Your task to perform on an android device: Search for Italian restaurants on Maps Image 0: 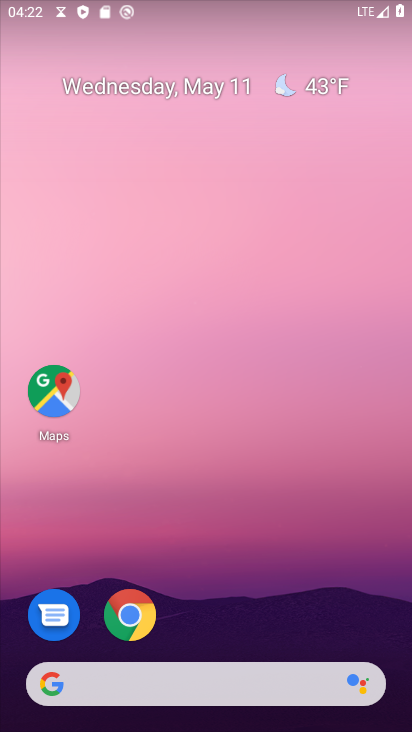
Step 0: drag from (203, 531) to (151, 28)
Your task to perform on an android device: Search for Italian restaurants on Maps Image 1: 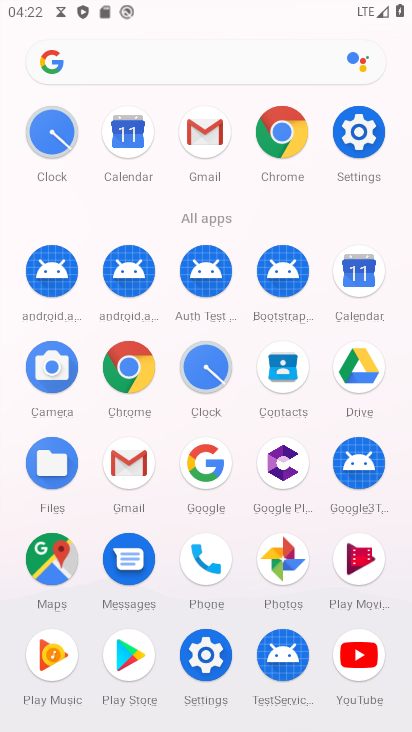
Step 1: click (51, 556)
Your task to perform on an android device: Search for Italian restaurants on Maps Image 2: 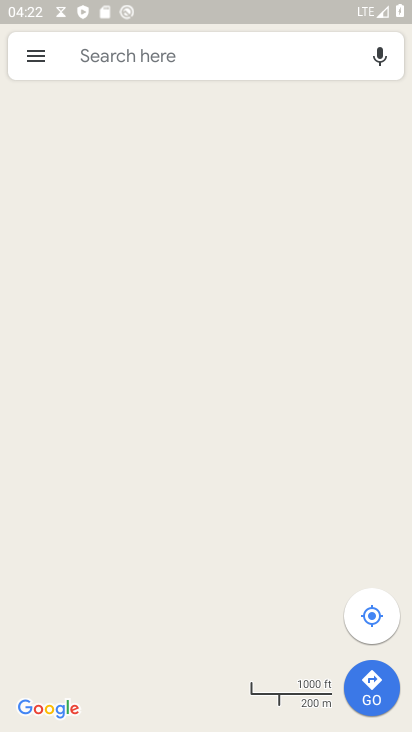
Step 2: click (222, 55)
Your task to perform on an android device: Search for Italian restaurants on Maps Image 3: 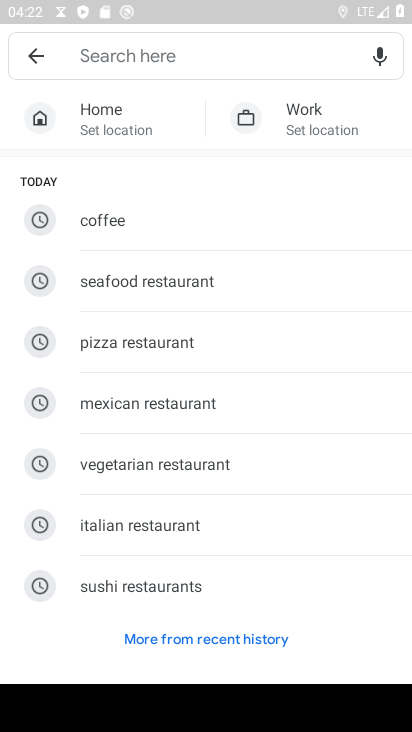
Step 3: type "Italian restaurants "
Your task to perform on an android device: Search for Italian restaurants on Maps Image 4: 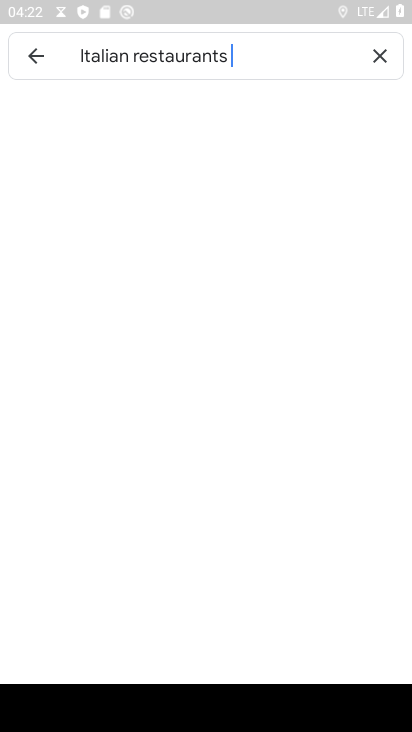
Step 4: type ""
Your task to perform on an android device: Search for Italian restaurants on Maps Image 5: 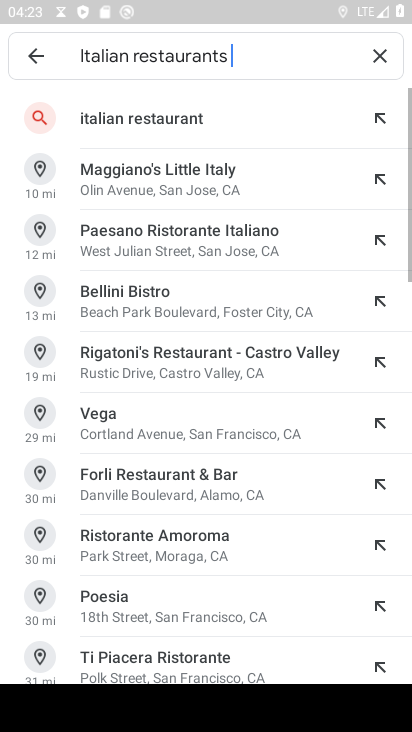
Step 5: click (130, 122)
Your task to perform on an android device: Search for Italian restaurants on Maps Image 6: 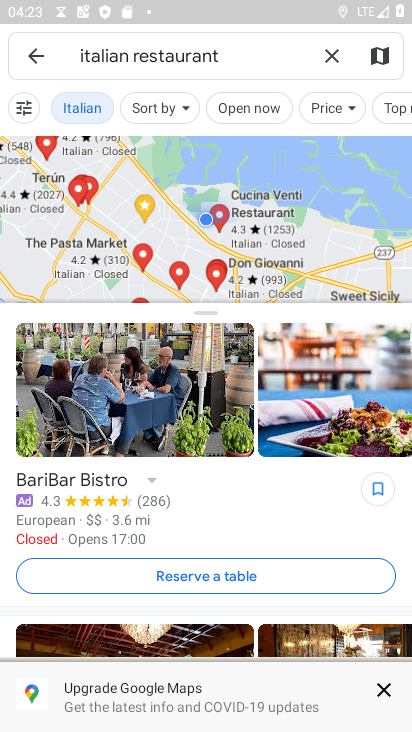
Step 6: task complete